Your task to perform on an android device: turn on priority inbox in the gmail app Image 0: 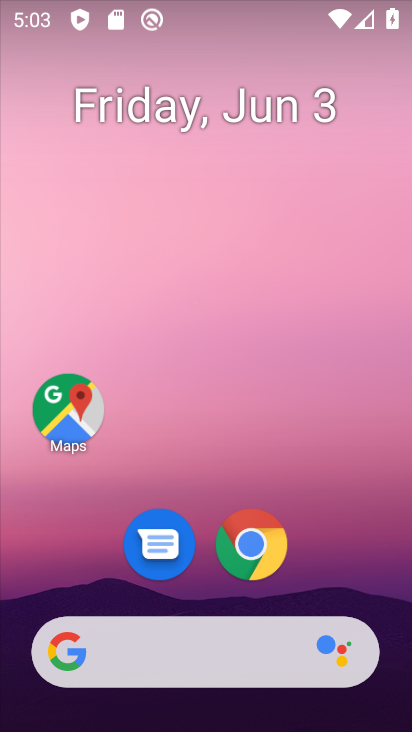
Step 0: drag from (319, 559) to (304, 147)
Your task to perform on an android device: turn on priority inbox in the gmail app Image 1: 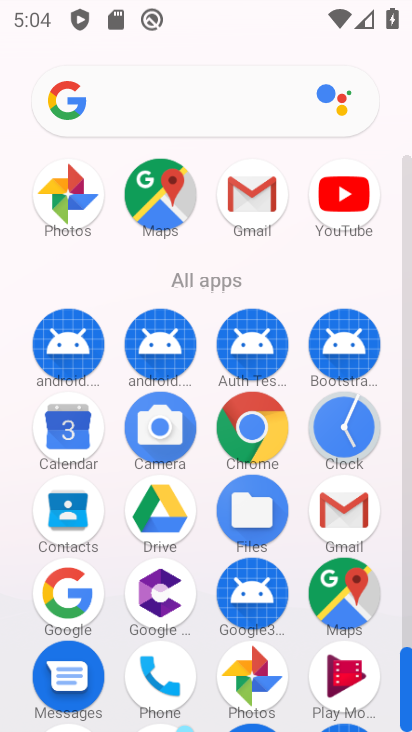
Step 1: click (350, 509)
Your task to perform on an android device: turn on priority inbox in the gmail app Image 2: 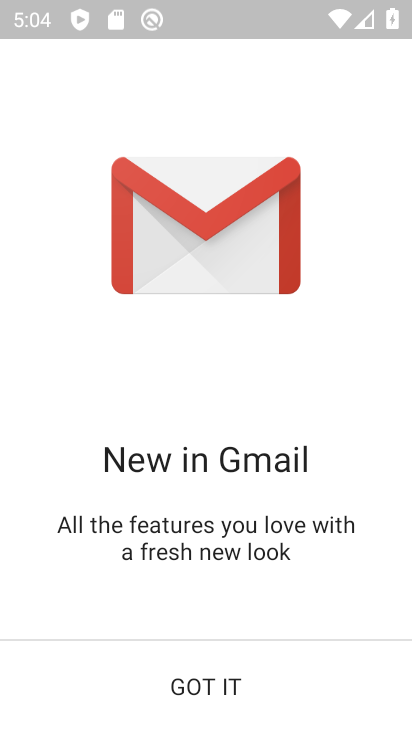
Step 2: click (203, 690)
Your task to perform on an android device: turn on priority inbox in the gmail app Image 3: 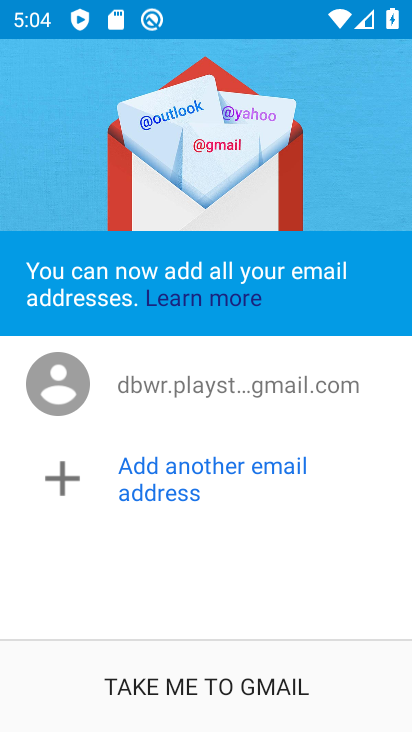
Step 3: click (203, 690)
Your task to perform on an android device: turn on priority inbox in the gmail app Image 4: 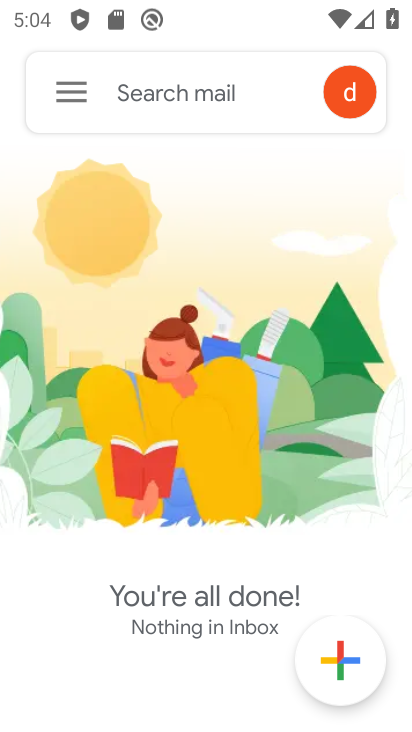
Step 4: click (64, 90)
Your task to perform on an android device: turn on priority inbox in the gmail app Image 5: 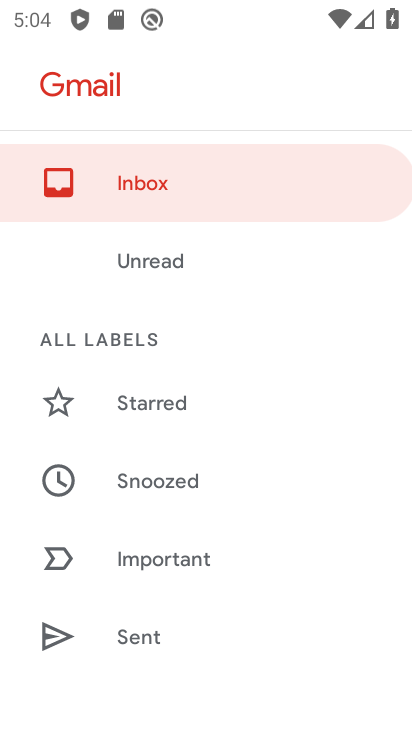
Step 5: drag from (234, 603) to (234, 234)
Your task to perform on an android device: turn on priority inbox in the gmail app Image 6: 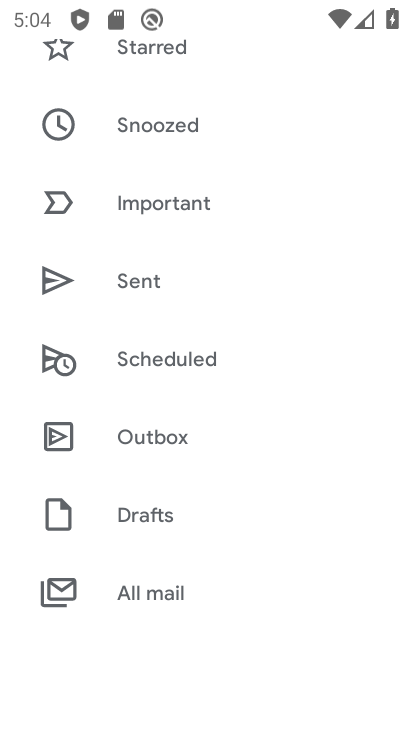
Step 6: drag from (295, 564) to (291, 130)
Your task to perform on an android device: turn on priority inbox in the gmail app Image 7: 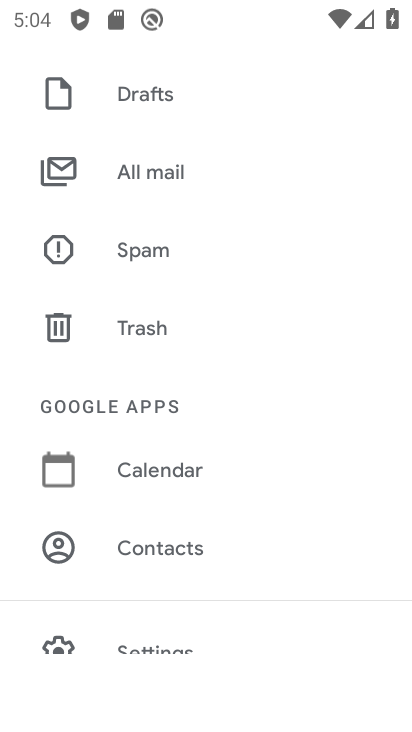
Step 7: drag from (289, 575) to (274, 245)
Your task to perform on an android device: turn on priority inbox in the gmail app Image 8: 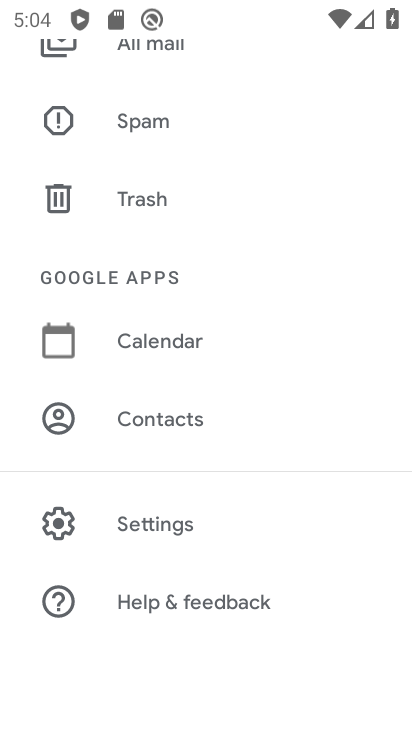
Step 8: click (168, 526)
Your task to perform on an android device: turn on priority inbox in the gmail app Image 9: 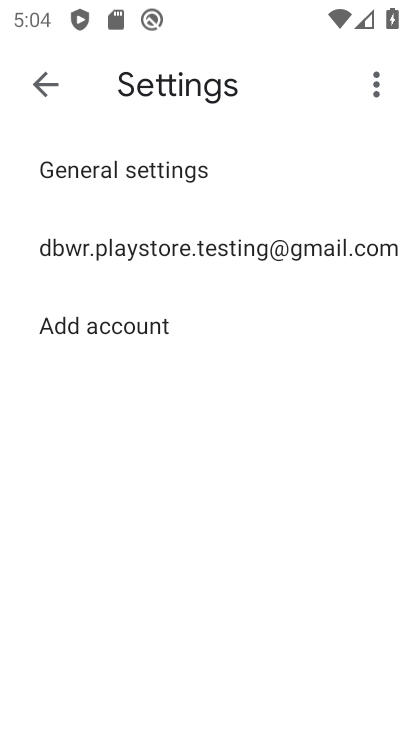
Step 9: click (230, 244)
Your task to perform on an android device: turn on priority inbox in the gmail app Image 10: 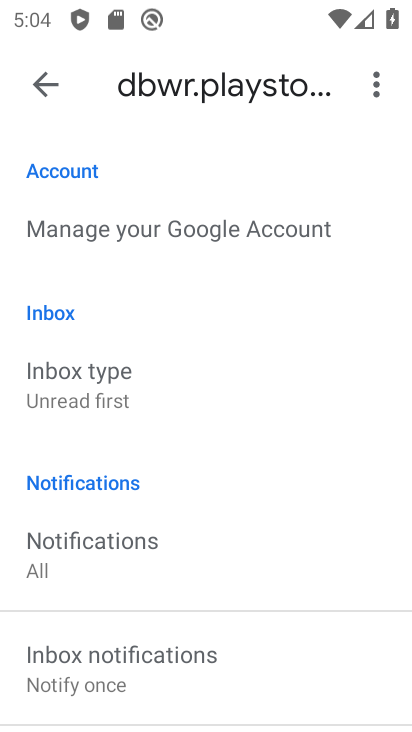
Step 10: click (77, 386)
Your task to perform on an android device: turn on priority inbox in the gmail app Image 11: 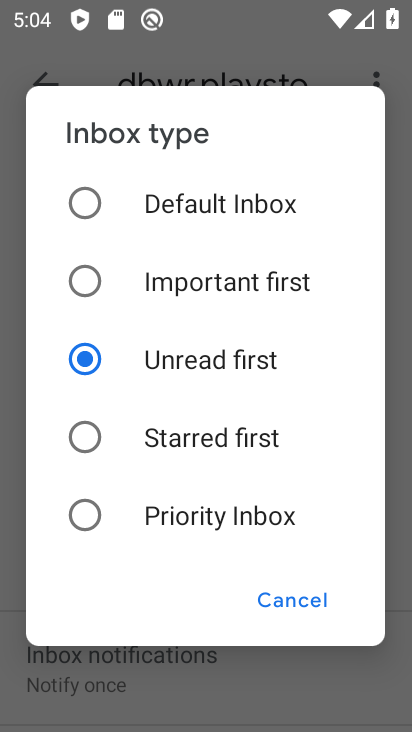
Step 11: click (238, 520)
Your task to perform on an android device: turn on priority inbox in the gmail app Image 12: 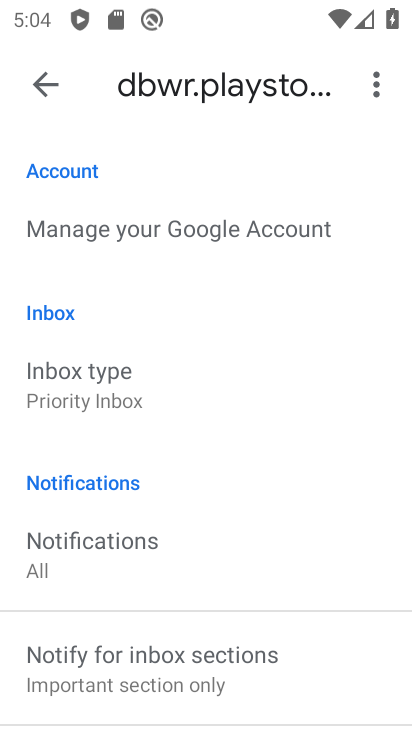
Step 12: task complete